Your task to perform on an android device: Search for sushi restaurants on Maps Image 0: 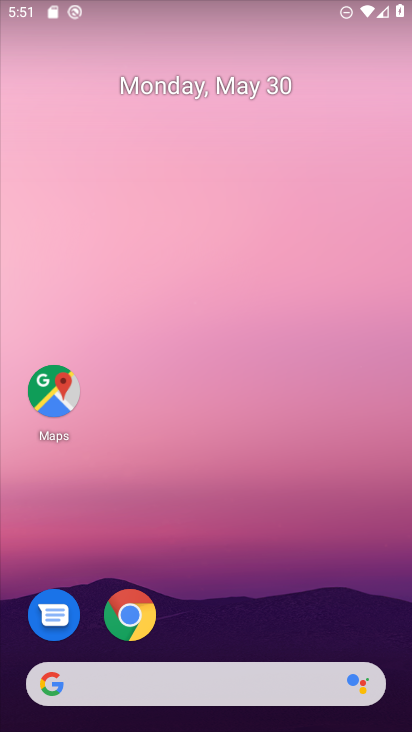
Step 0: click (21, 378)
Your task to perform on an android device: Search for sushi restaurants on Maps Image 1: 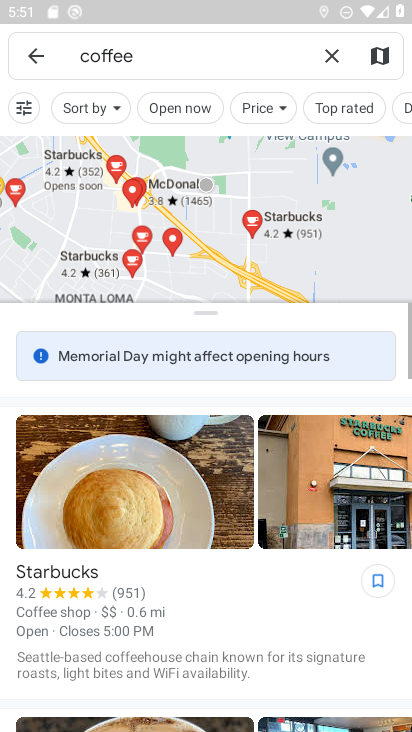
Step 1: click (327, 64)
Your task to perform on an android device: Search for sushi restaurants on Maps Image 2: 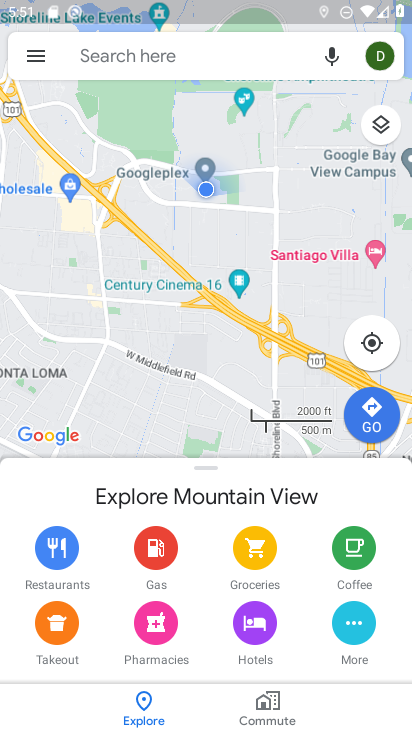
Step 2: click (169, 69)
Your task to perform on an android device: Search for sushi restaurants on Maps Image 3: 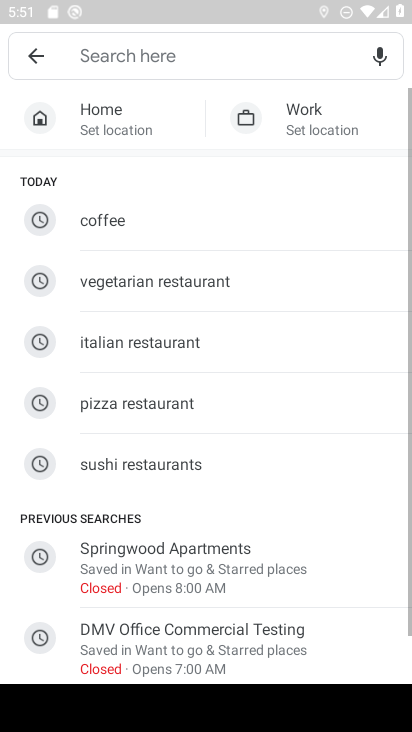
Step 3: click (145, 67)
Your task to perform on an android device: Search for sushi restaurants on Maps Image 4: 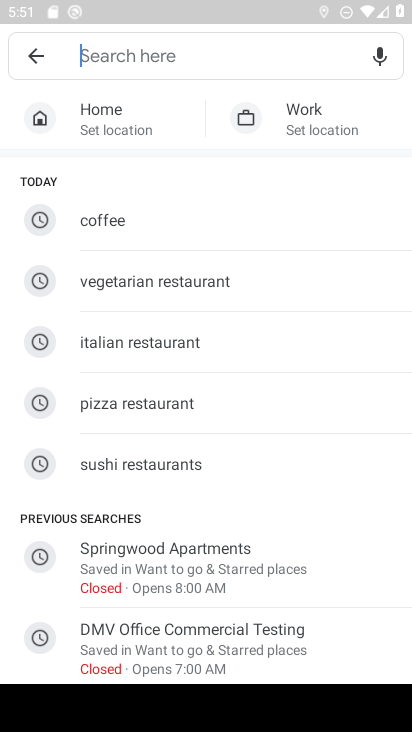
Step 4: click (192, 476)
Your task to perform on an android device: Search for sushi restaurants on Maps Image 5: 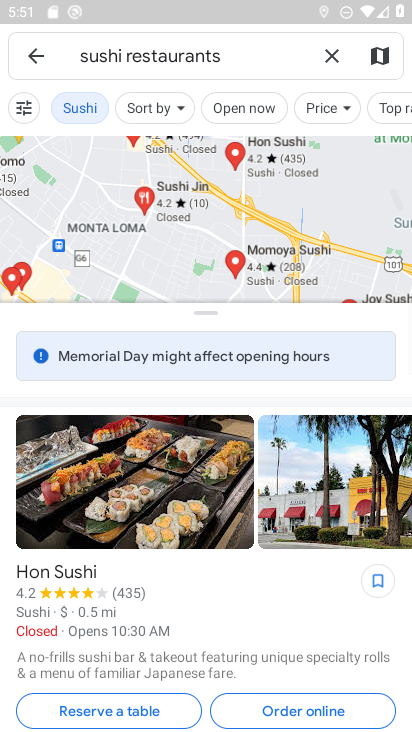
Step 5: task complete